Your task to perform on an android device: Open sound settings Image 0: 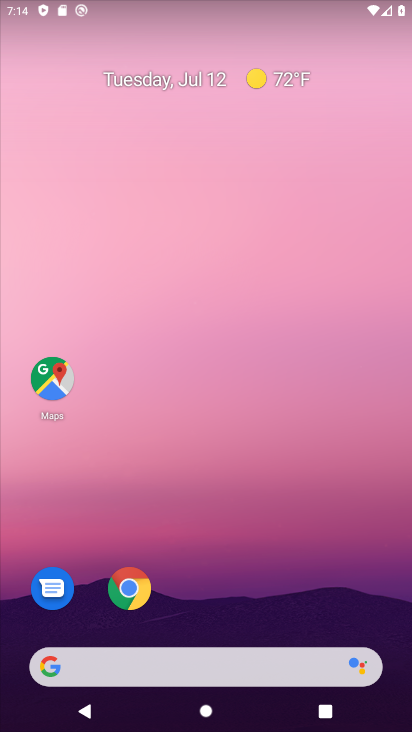
Step 0: drag from (264, 575) to (377, 26)
Your task to perform on an android device: Open sound settings Image 1: 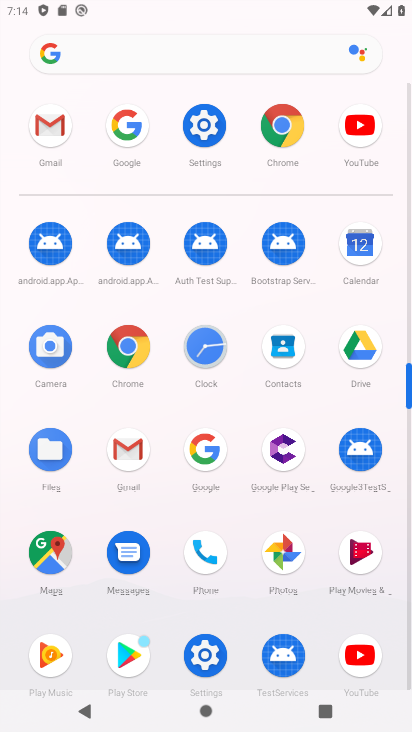
Step 1: click (194, 122)
Your task to perform on an android device: Open sound settings Image 2: 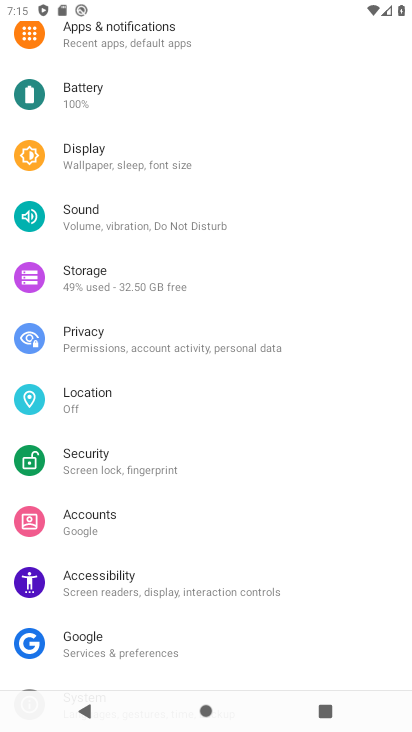
Step 2: click (91, 216)
Your task to perform on an android device: Open sound settings Image 3: 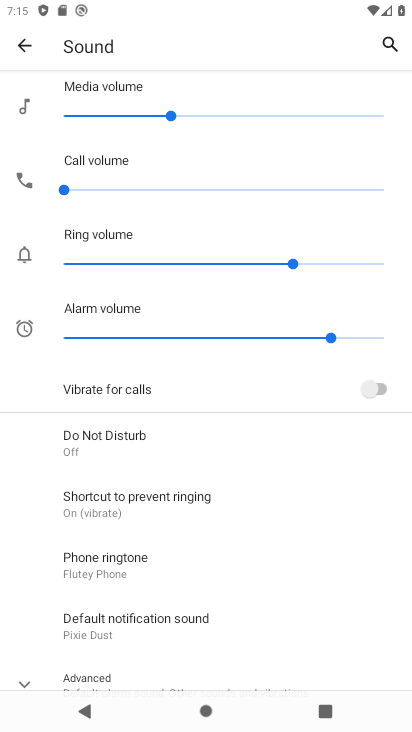
Step 3: task complete